Your task to perform on an android device: Go to settings Image 0: 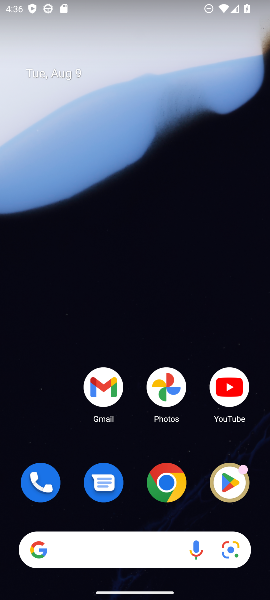
Step 0: drag from (132, 437) to (147, 202)
Your task to perform on an android device: Go to settings Image 1: 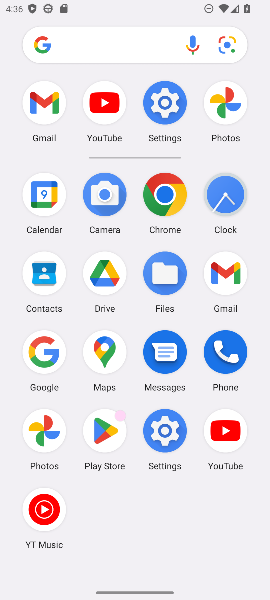
Step 1: click (147, 120)
Your task to perform on an android device: Go to settings Image 2: 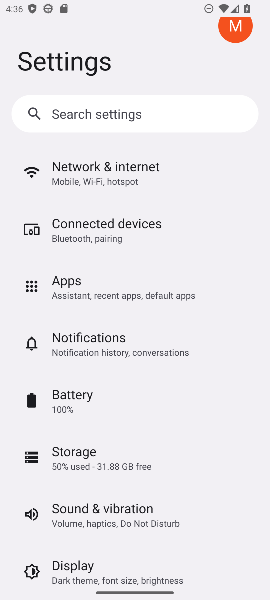
Step 2: task complete